Your task to perform on an android device: Open Android settings Image 0: 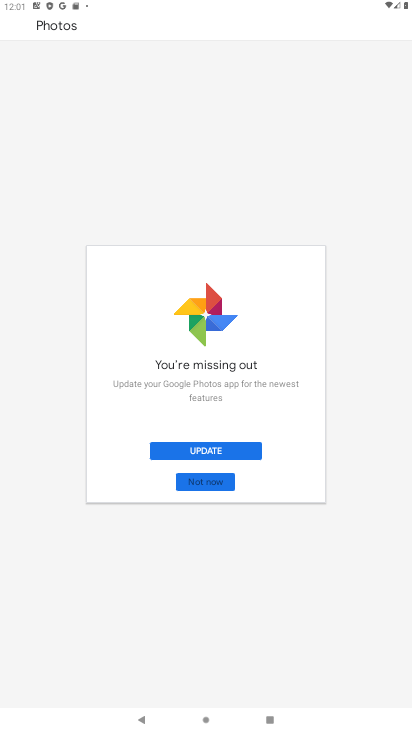
Step 0: press home button
Your task to perform on an android device: Open Android settings Image 1: 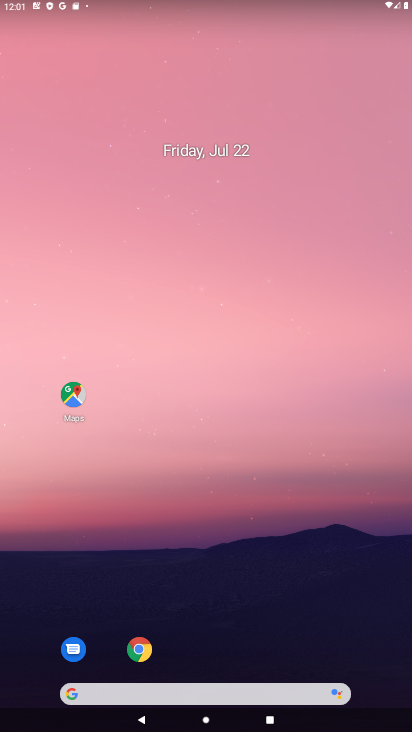
Step 1: drag from (234, 727) to (230, 231)
Your task to perform on an android device: Open Android settings Image 2: 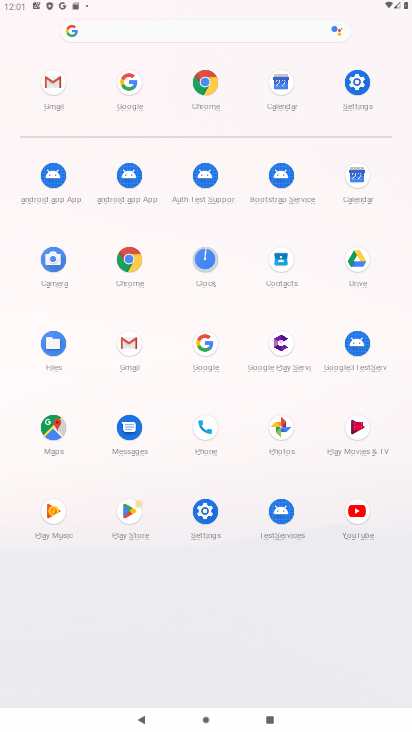
Step 2: click (360, 81)
Your task to perform on an android device: Open Android settings Image 3: 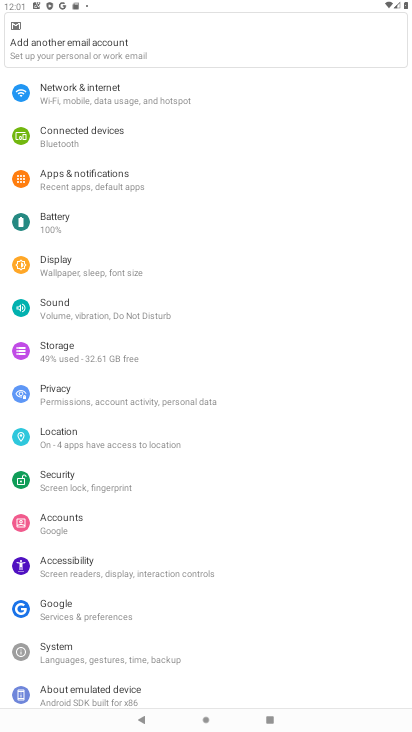
Step 3: task complete